Your task to perform on an android device: check battery use Image 0: 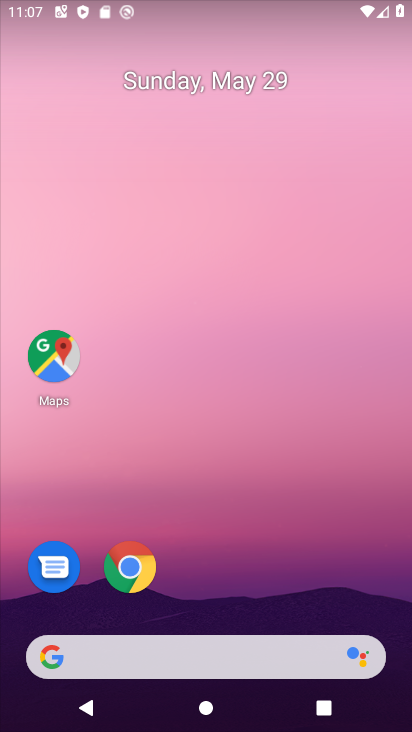
Step 0: drag from (203, 605) to (39, 280)
Your task to perform on an android device: check battery use Image 1: 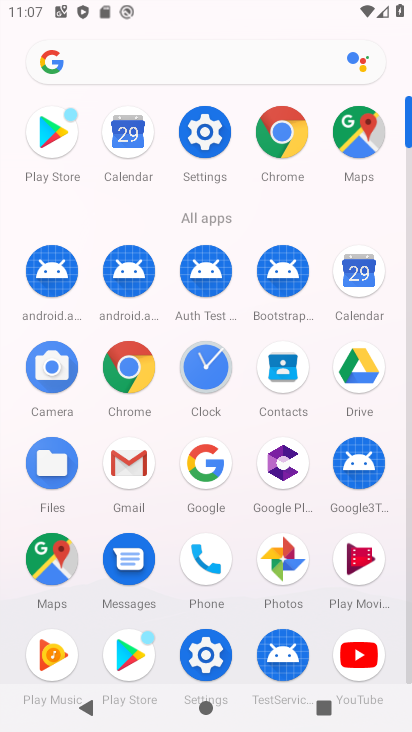
Step 1: click (208, 643)
Your task to perform on an android device: check battery use Image 2: 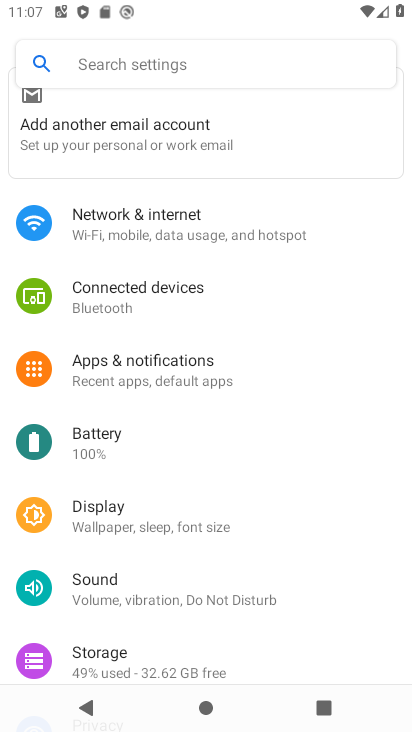
Step 2: click (54, 442)
Your task to perform on an android device: check battery use Image 3: 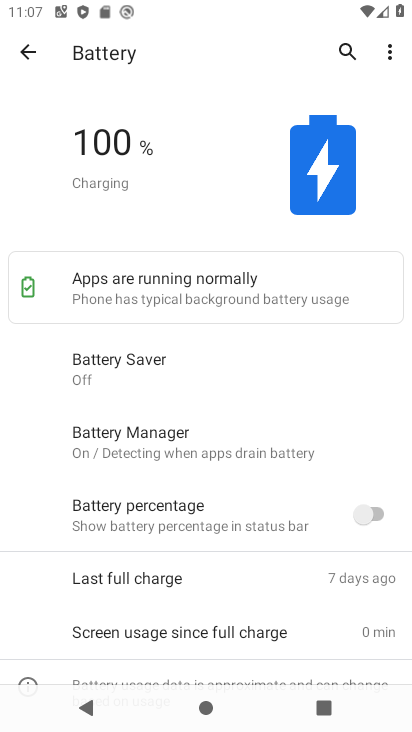
Step 3: task complete